Your task to perform on an android device: change text size in settings app Image 0: 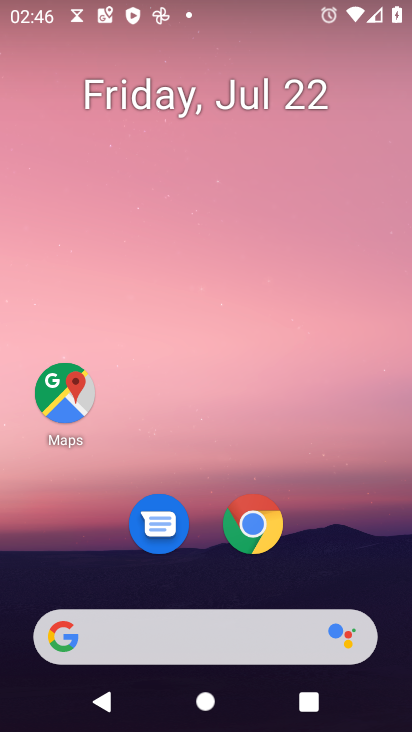
Step 0: drag from (151, 635) to (280, 103)
Your task to perform on an android device: change text size in settings app Image 1: 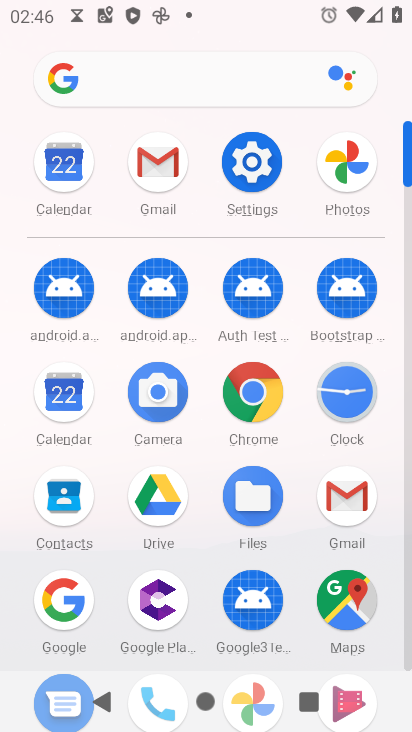
Step 1: click (256, 156)
Your task to perform on an android device: change text size in settings app Image 2: 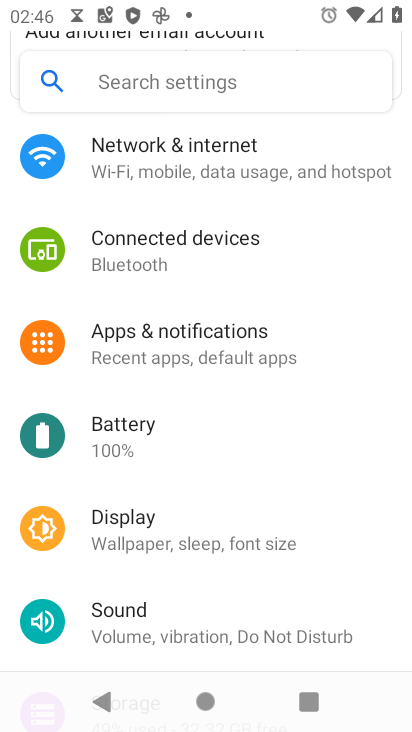
Step 2: click (230, 541)
Your task to perform on an android device: change text size in settings app Image 3: 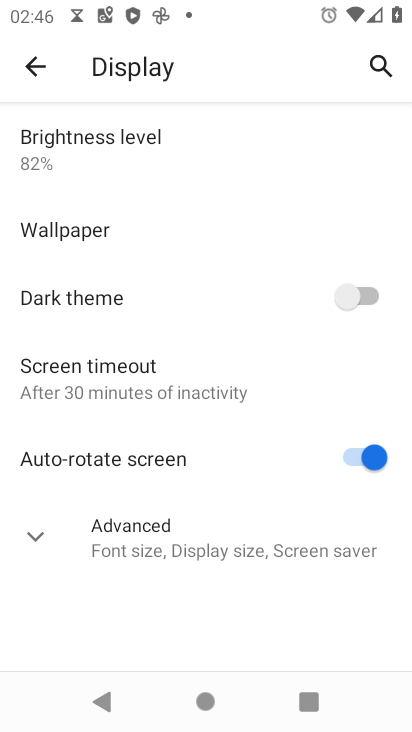
Step 3: click (167, 537)
Your task to perform on an android device: change text size in settings app Image 4: 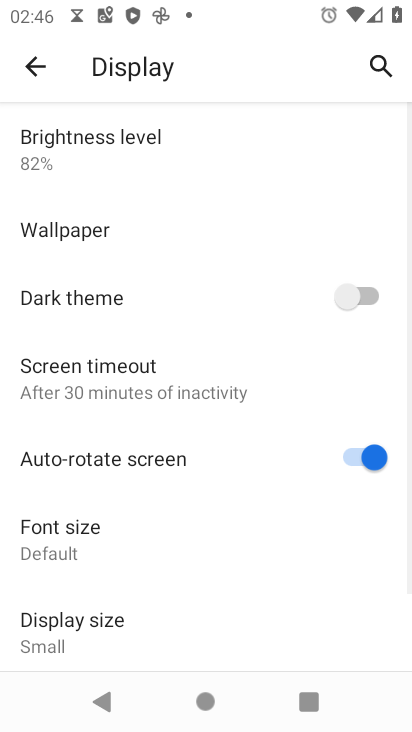
Step 4: click (83, 534)
Your task to perform on an android device: change text size in settings app Image 5: 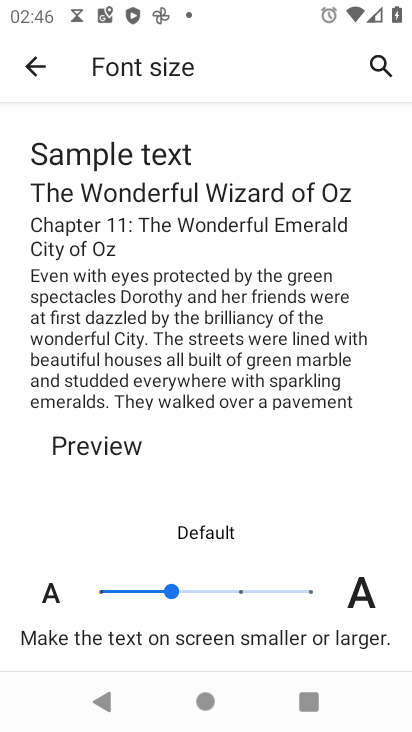
Step 5: click (104, 586)
Your task to perform on an android device: change text size in settings app Image 6: 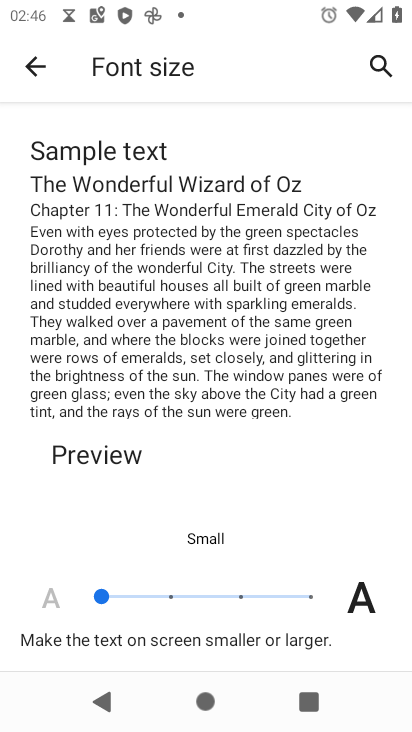
Step 6: task complete